Your task to perform on an android device: set default search engine in the chrome app Image 0: 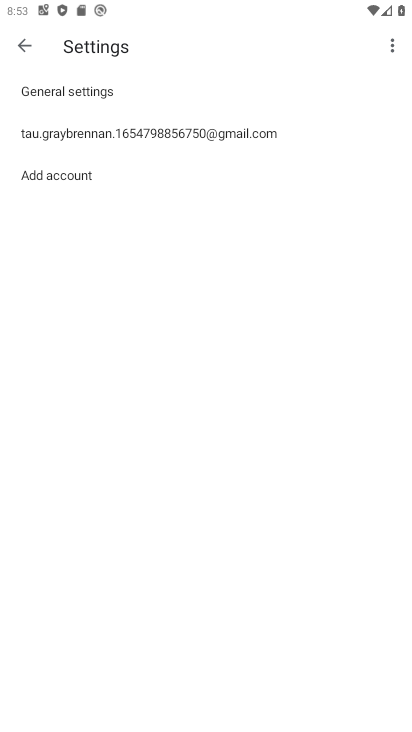
Step 0: press home button
Your task to perform on an android device: set default search engine in the chrome app Image 1: 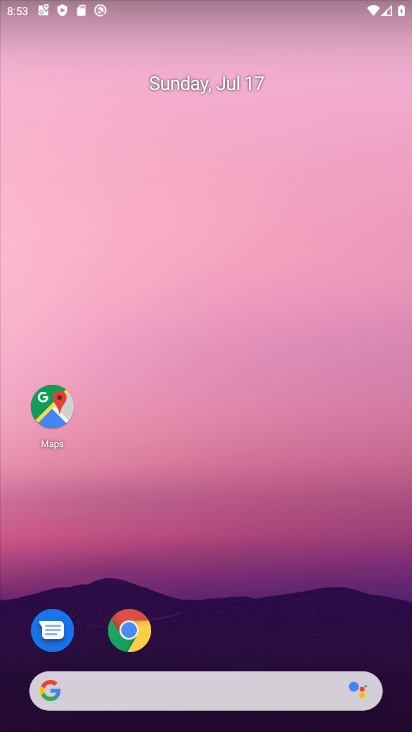
Step 1: drag from (322, 574) to (348, 106)
Your task to perform on an android device: set default search engine in the chrome app Image 2: 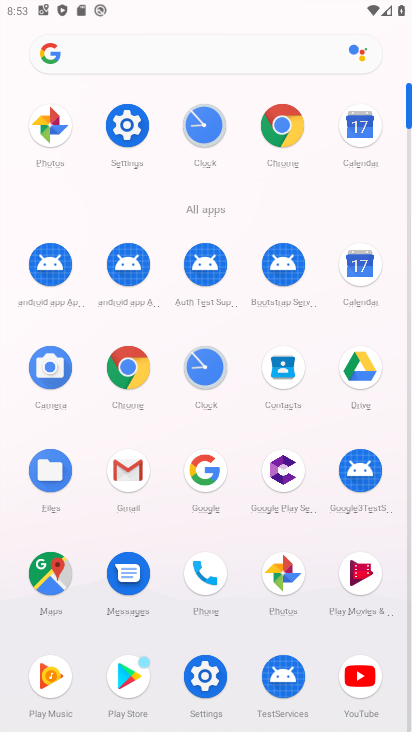
Step 2: click (289, 134)
Your task to perform on an android device: set default search engine in the chrome app Image 3: 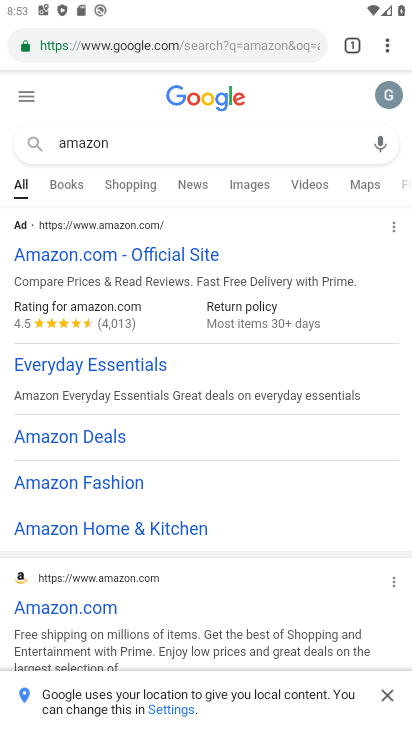
Step 3: click (383, 51)
Your task to perform on an android device: set default search engine in the chrome app Image 4: 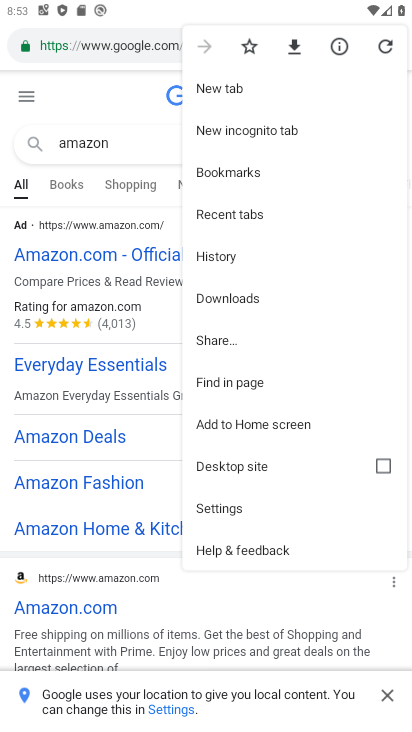
Step 4: click (245, 508)
Your task to perform on an android device: set default search engine in the chrome app Image 5: 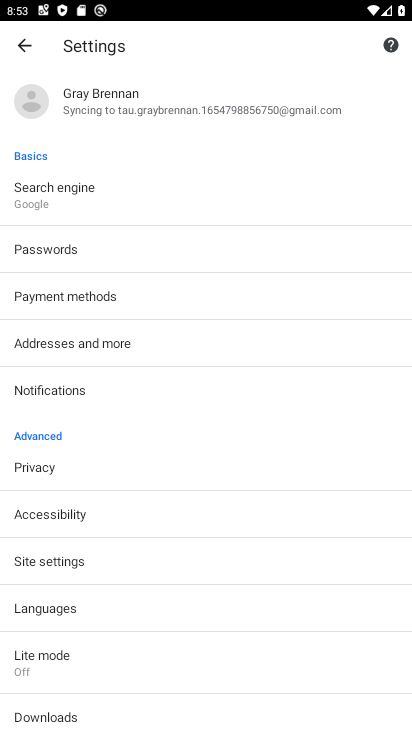
Step 5: drag from (301, 542) to (304, 459)
Your task to perform on an android device: set default search engine in the chrome app Image 6: 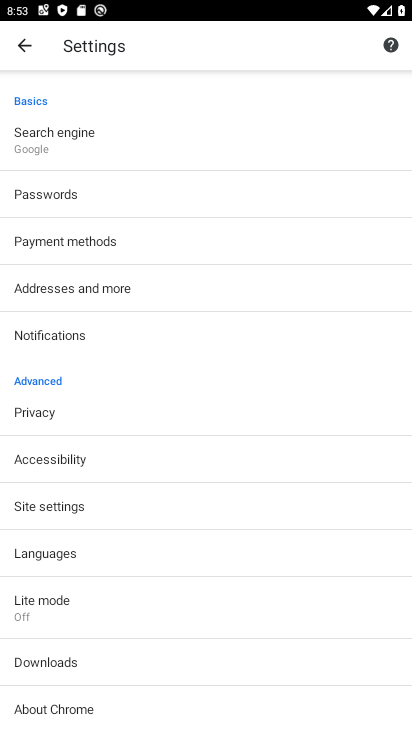
Step 6: drag from (317, 292) to (319, 401)
Your task to perform on an android device: set default search engine in the chrome app Image 7: 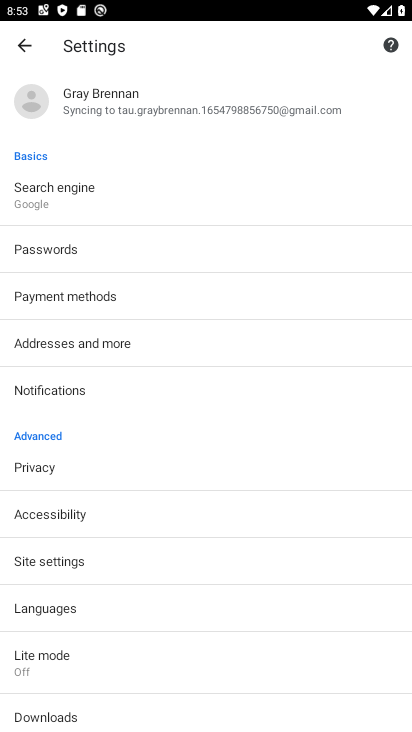
Step 7: click (218, 202)
Your task to perform on an android device: set default search engine in the chrome app Image 8: 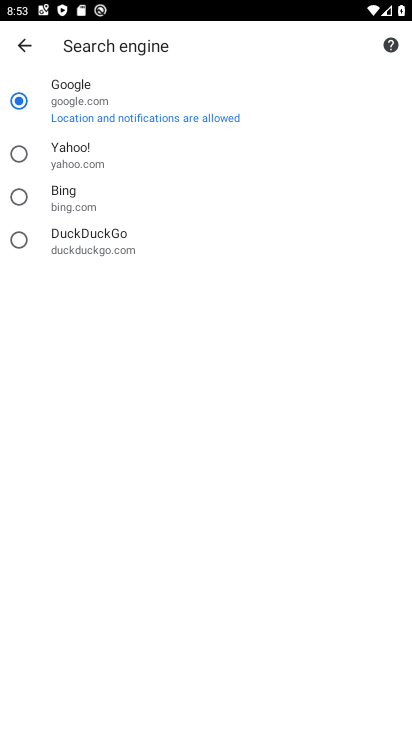
Step 8: click (87, 200)
Your task to perform on an android device: set default search engine in the chrome app Image 9: 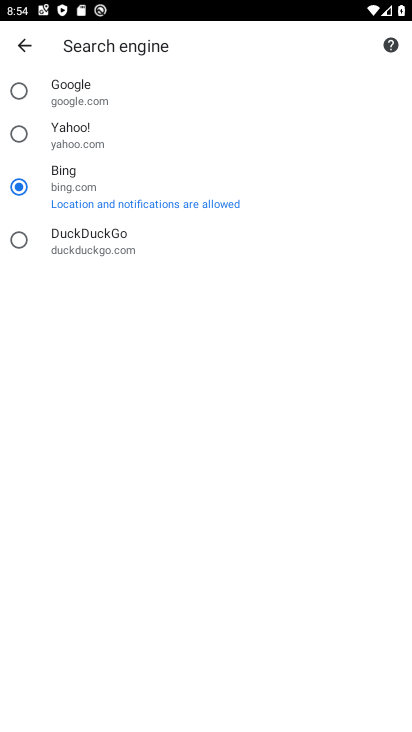
Step 9: task complete